Your task to perform on an android device: Go to eBay Image 0: 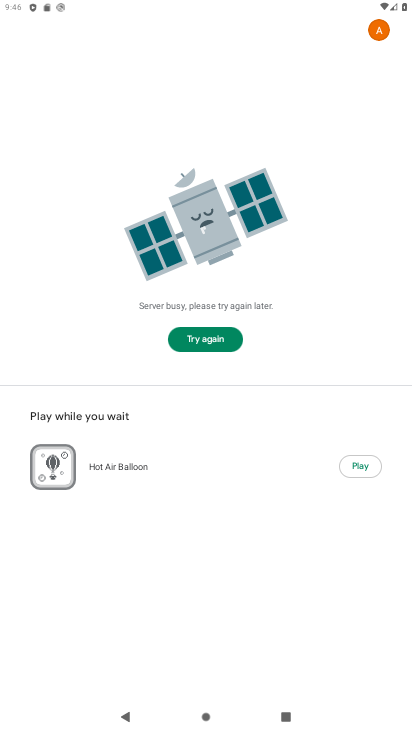
Step 0: press home button
Your task to perform on an android device: Go to eBay Image 1: 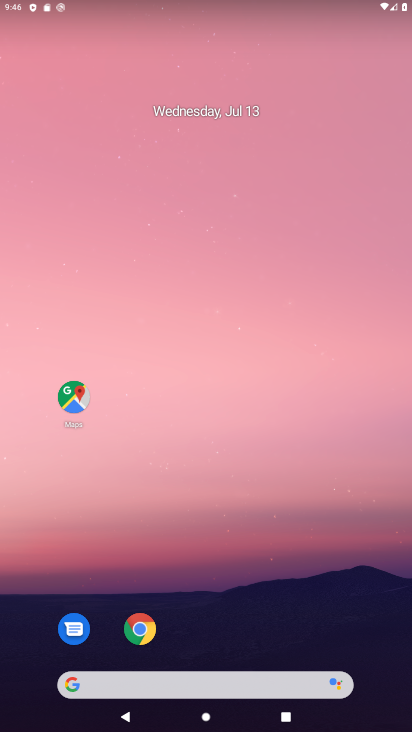
Step 1: click (136, 624)
Your task to perform on an android device: Go to eBay Image 2: 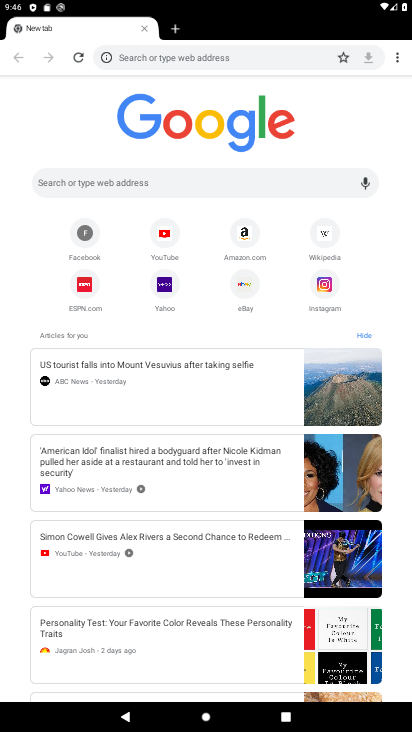
Step 2: click (243, 282)
Your task to perform on an android device: Go to eBay Image 3: 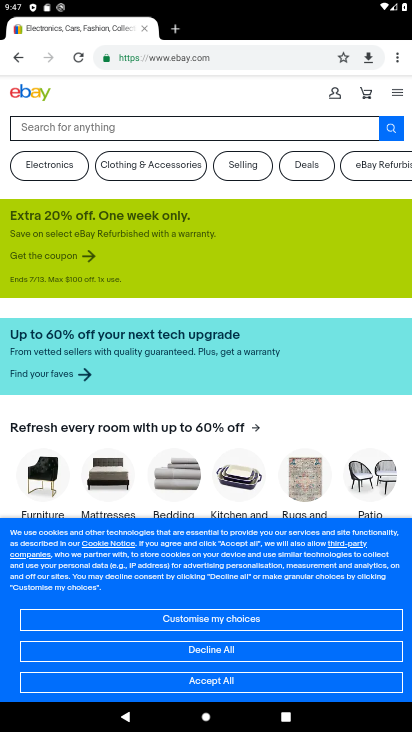
Step 3: click (224, 682)
Your task to perform on an android device: Go to eBay Image 4: 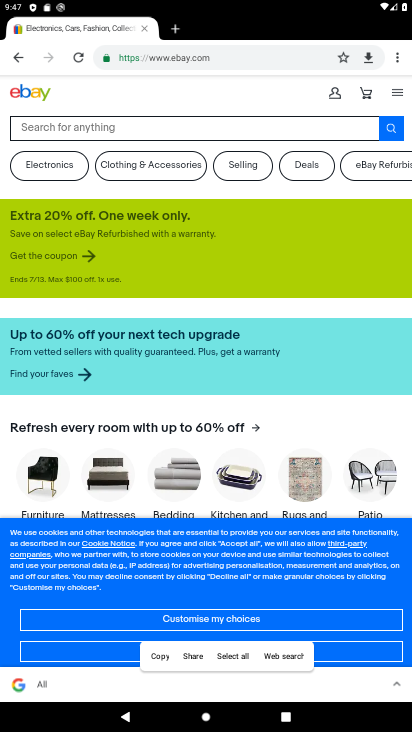
Step 4: click (339, 655)
Your task to perform on an android device: Go to eBay Image 5: 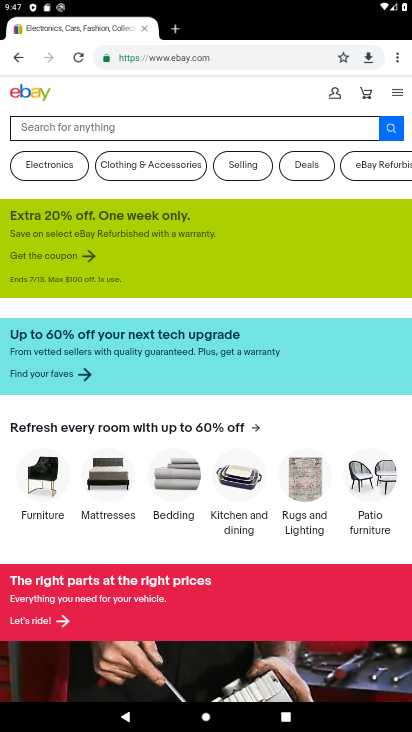
Step 5: task complete